Your task to perform on an android device: move a message to another label in the gmail app Image 0: 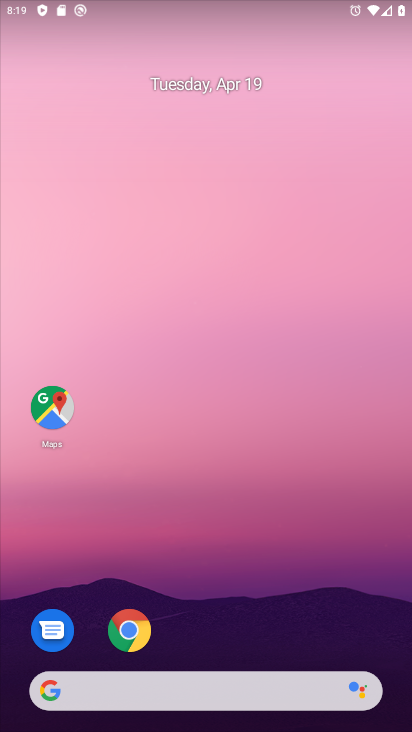
Step 0: drag from (249, 710) to (278, 369)
Your task to perform on an android device: move a message to another label in the gmail app Image 1: 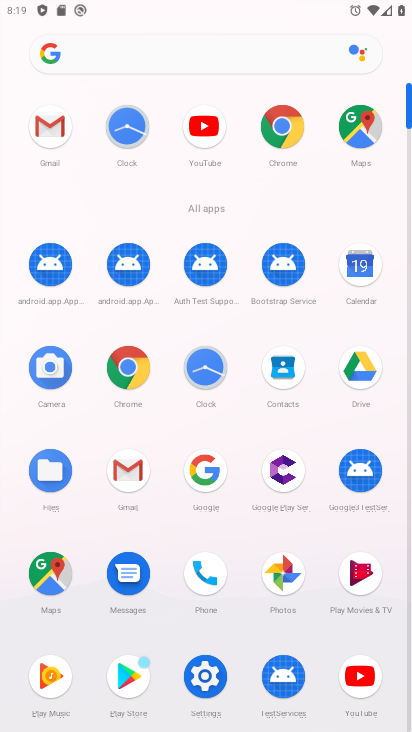
Step 1: click (129, 477)
Your task to perform on an android device: move a message to another label in the gmail app Image 2: 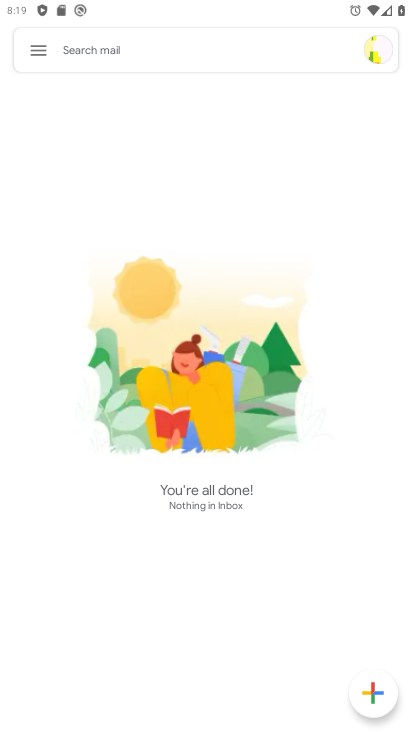
Step 2: click (41, 43)
Your task to perform on an android device: move a message to another label in the gmail app Image 3: 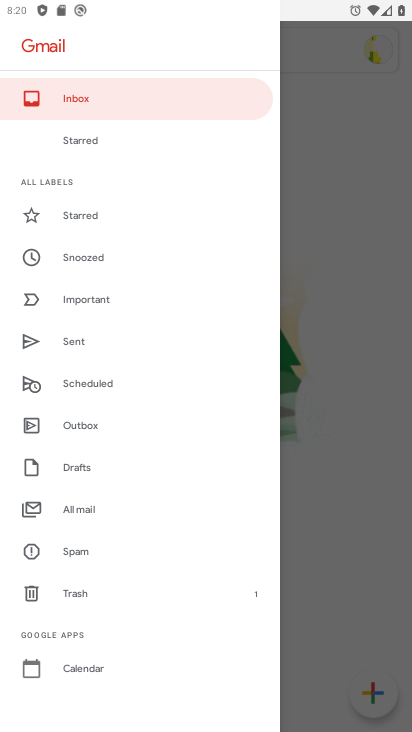
Step 3: click (122, 516)
Your task to perform on an android device: move a message to another label in the gmail app Image 4: 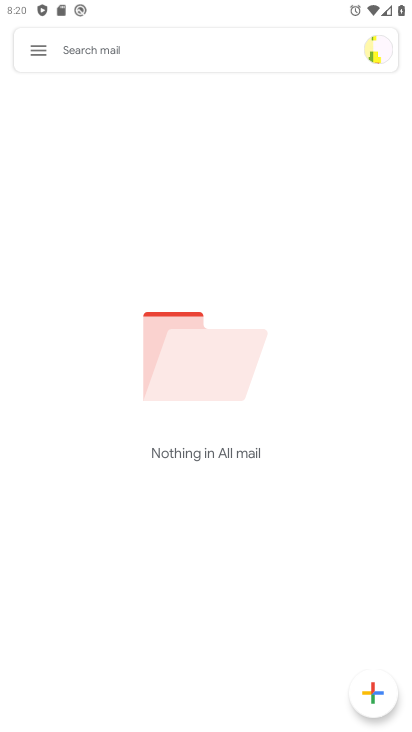
Step 4: task complete